Your task to perform on an android device: Go to settings Image 0: 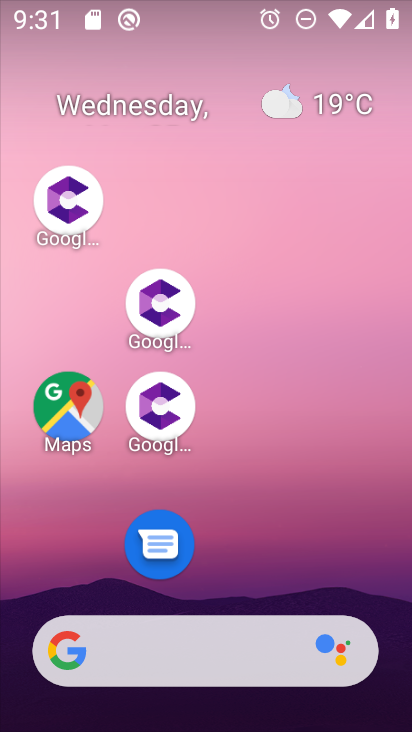
Step 0: drag from (299, 524) to (258, 44)
Your task to perform on an android device: Go to settings Image 1: 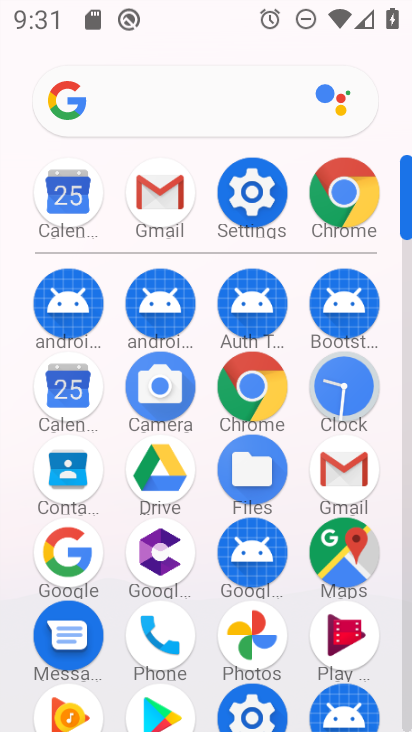
Step 1: click (248, 199)
Your task to perform on an android device: Go to settings Image 2: 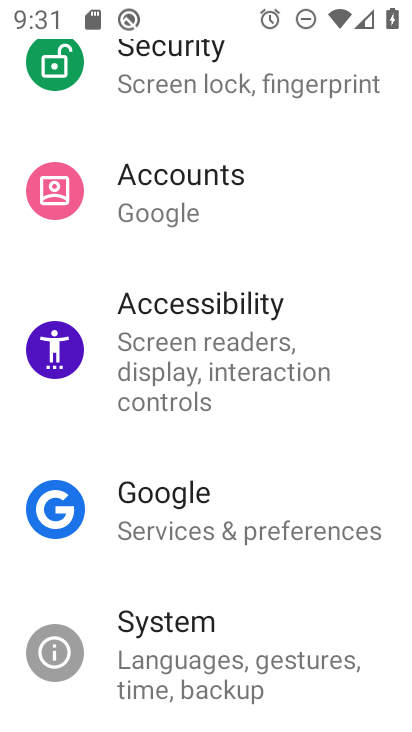
Step 2: task complete